Your task to perform on an android device: Show the shopping cart on bestbuy.com. Add "usb-b" to the cart on bestbuy.com, then select checkout. Image 0: 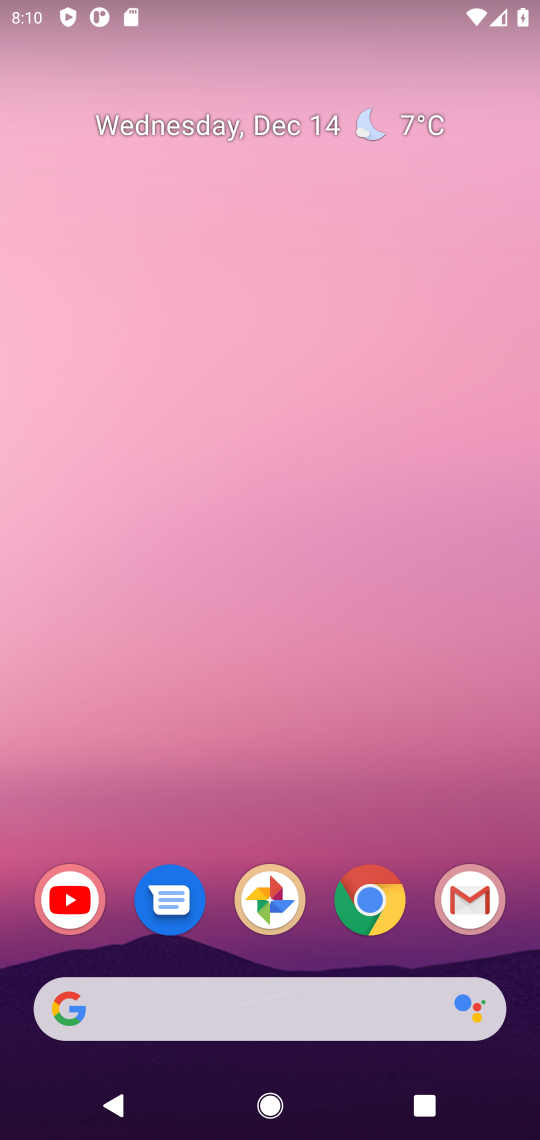
Step 0: click (239, 1013)
Your task to perform on an android device: Show the shopping cart on bestbuy.com. Add "usb-b" to the cart on bestbuy.com, then select checkout. Image 1: 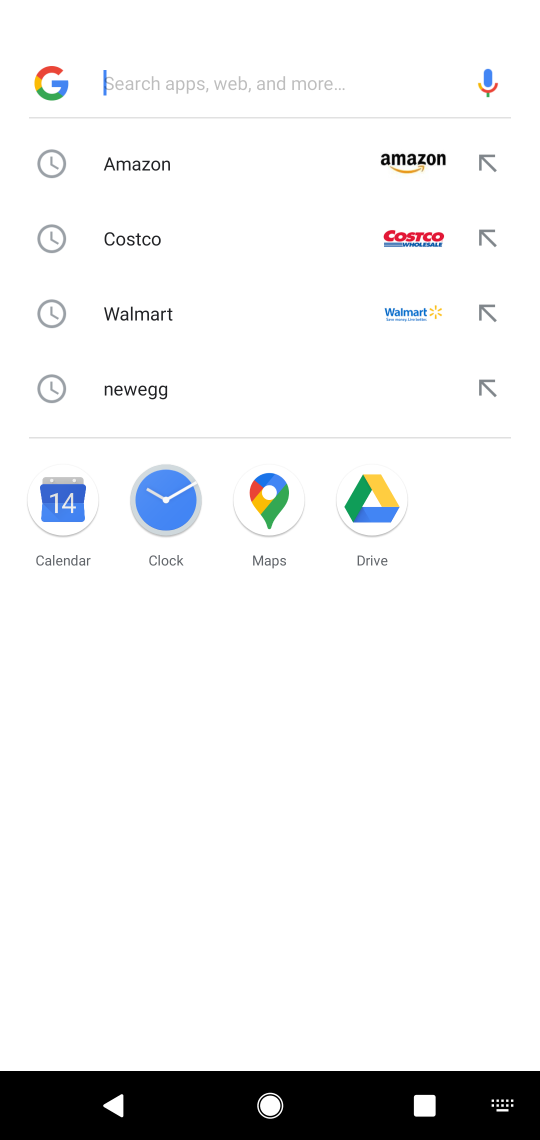
Step 1: type "bestbuy.com"
Your task to perform on an android device: Show the shopping cart on bestbuy.com. Add "usb-b" to the cart on bestbuy.com, then select checkout. Image 2: 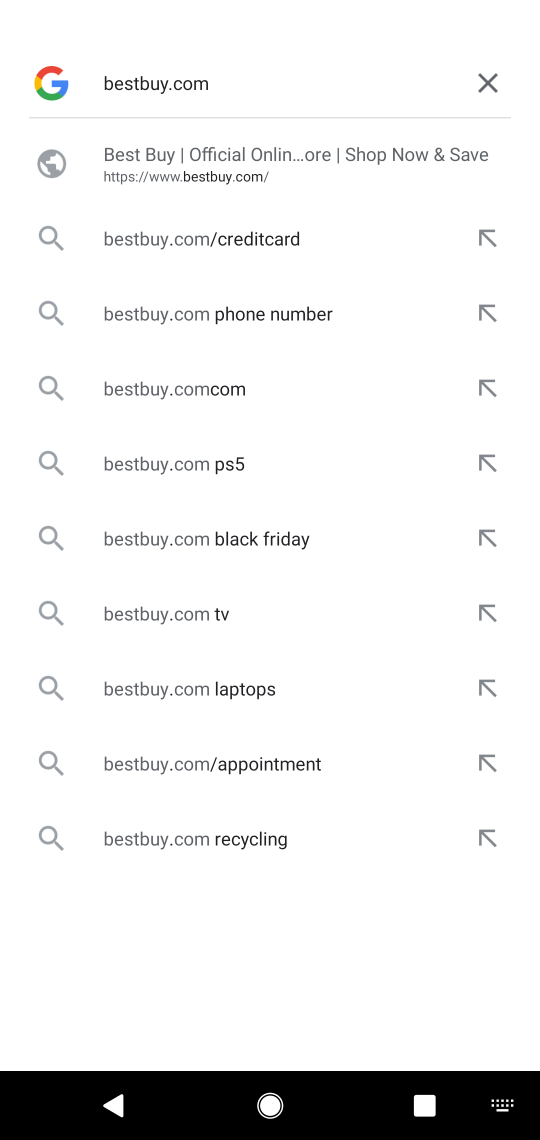
Step 2: type ""
Your task to perform on an android device: Show the shopping cart on bestbuy.com. Add "usb-b" to the cart on bestbuy.com, then select checkout. Image 3: 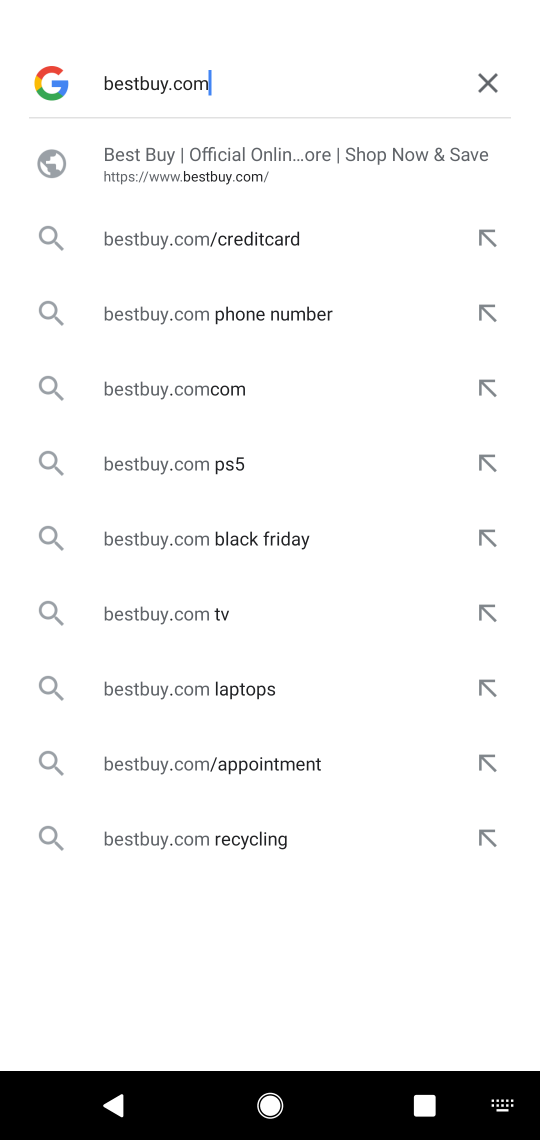
Step 3: click (184, 184)
Your task to perform on an android device: Show the shopping cart on bestbuy.com. Add "usb-b" to the cart on bestbuy.com, then select checkout. Image 4: 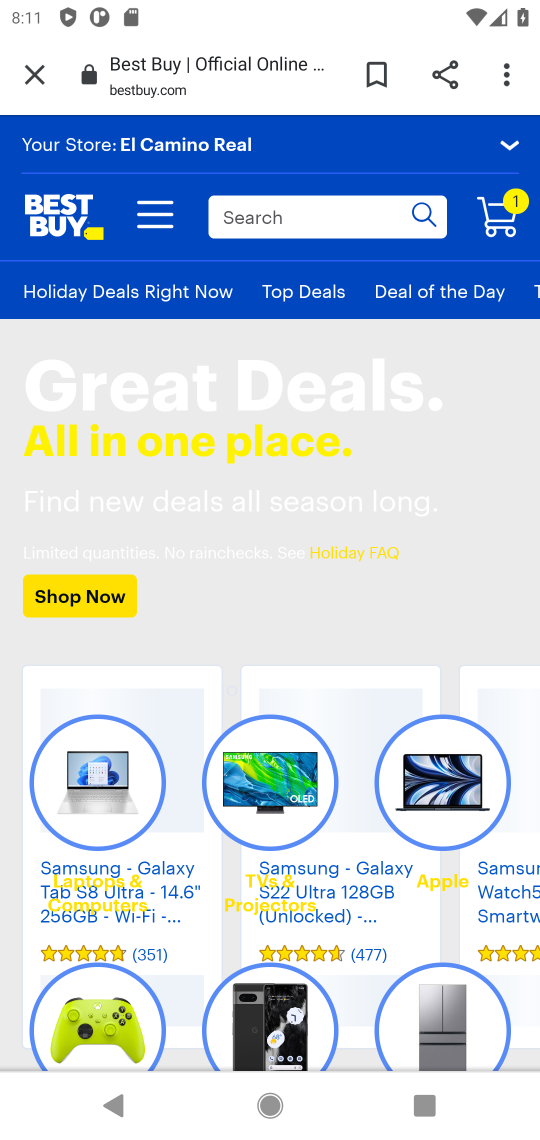
Step 4: click (485, 231)
Your task to perform on an android device: Show the shopping cart on bestbuy.com. Add "usb-b" to the cart on bestbuy.com, then select checkout. Image 5: 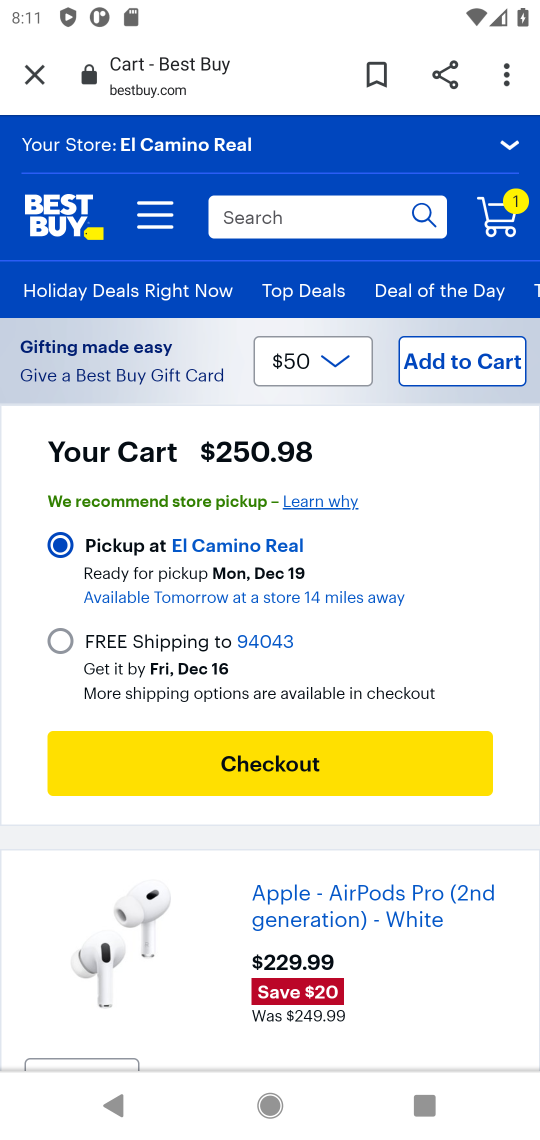
Step 5: click (307, 226)
Your task to perform on an android device: Show the shopping cart on bestbuy.com. Add "usb-b" to the cart on bestbuy.com, then select checkout. Image 6: 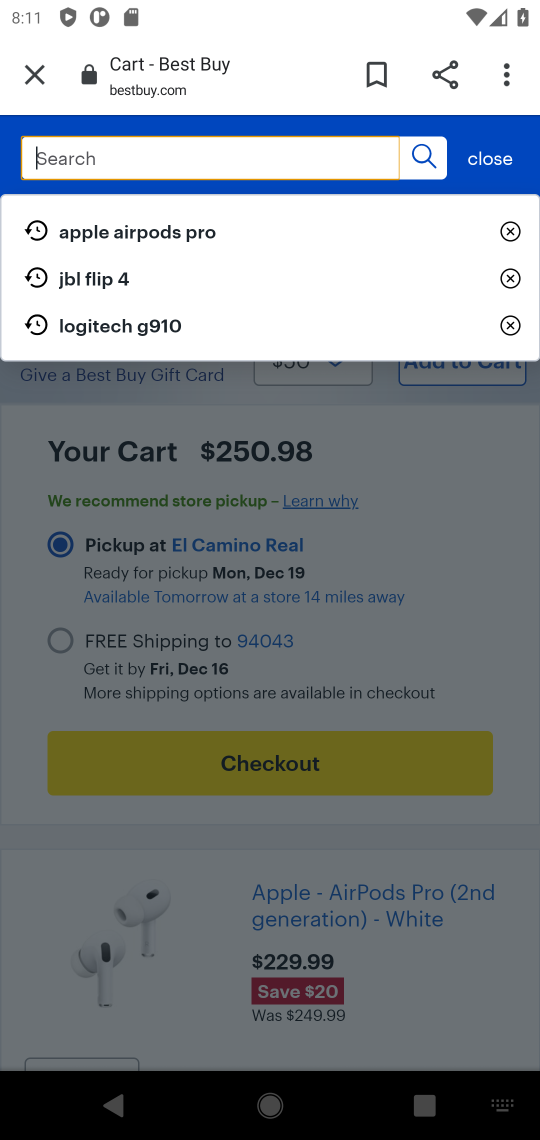
Step 6: type ""usb-b"
Your task to perform on an android device: Show the shopping cart on bestbuy.com. Add "usb-b" to the cart on bestbuy.com, then select checkout. Image 7: 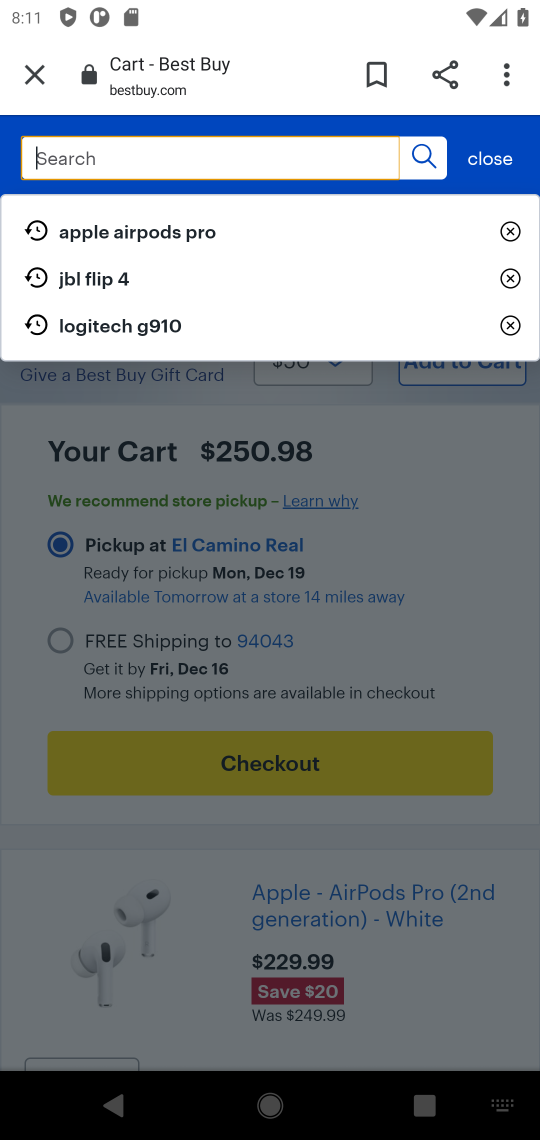
Step 7: type ""
Your task to perform on an android device: Show the shopping cart on bestbuy.com. Add "usb-b" to the cart on bestbuy.com, then select checkout. Image 8: 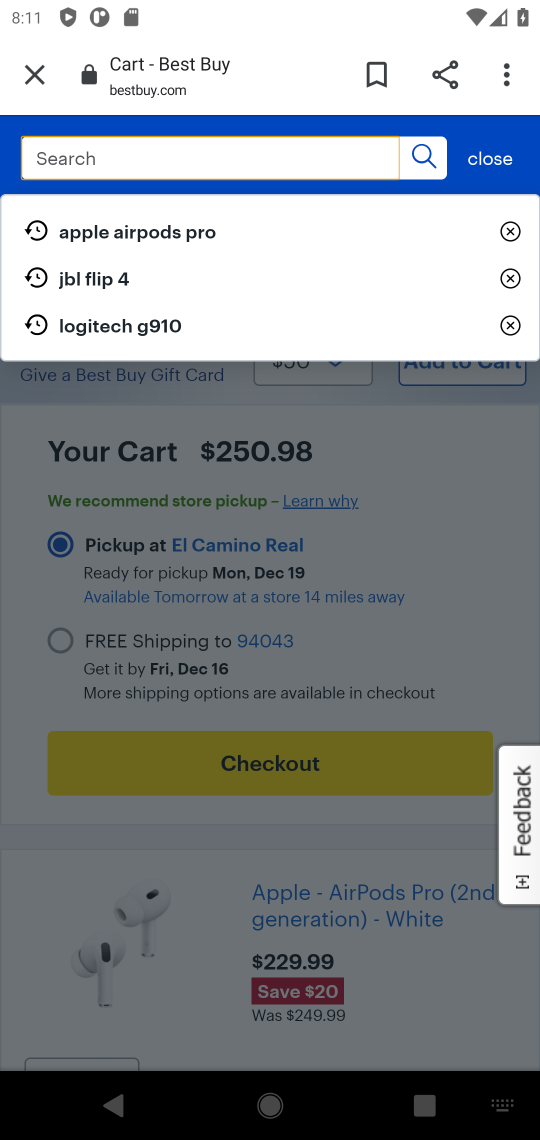
Step 8: type ""usb-b"
Your task to perform on an android device: Show the shopping cart on bestbuy.com. Add "usb-b" to the cart on bestbuy.com, then select checkout. Image 9: 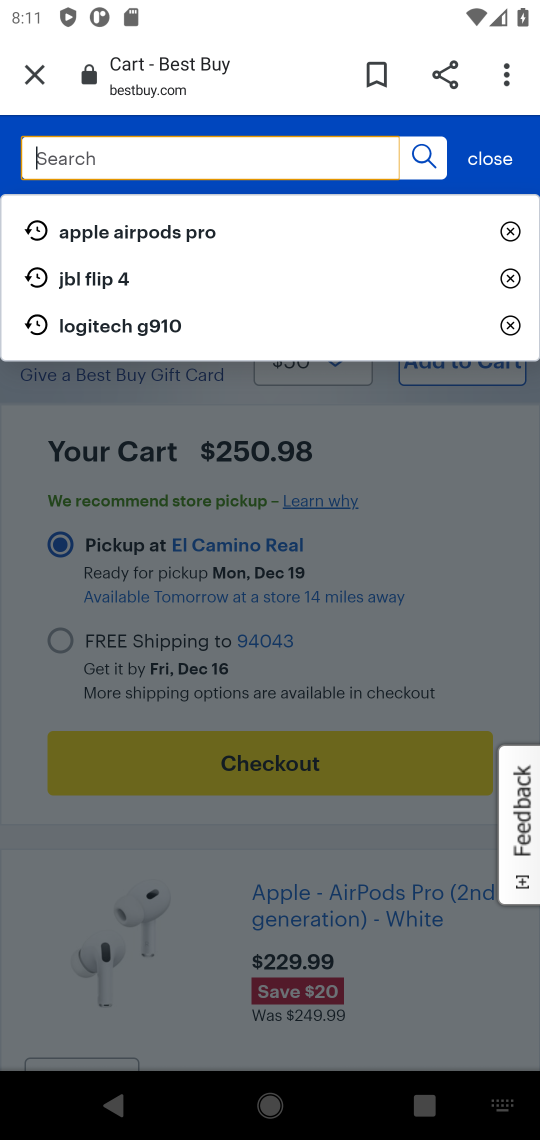
Step 9: type ""
Your task to perform on an android device: Show the shopping cart on bestbuy.com. Add "usb-b" to the cart on bestbuy.com, then select checkout. Image 10: 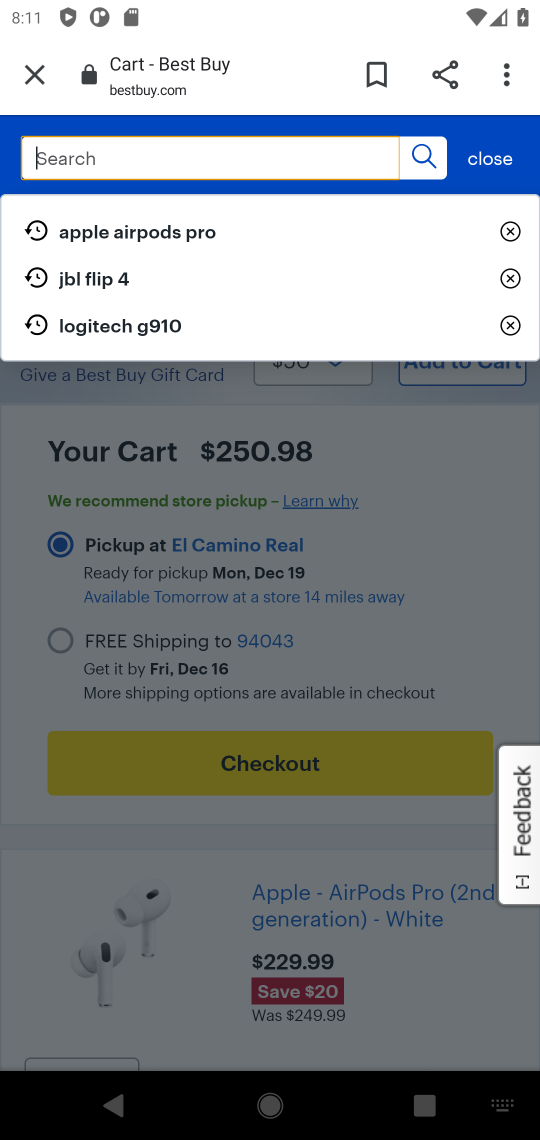
Step 10: task complete